Your task to perform on an android device: toggle sleep mode Image 0: 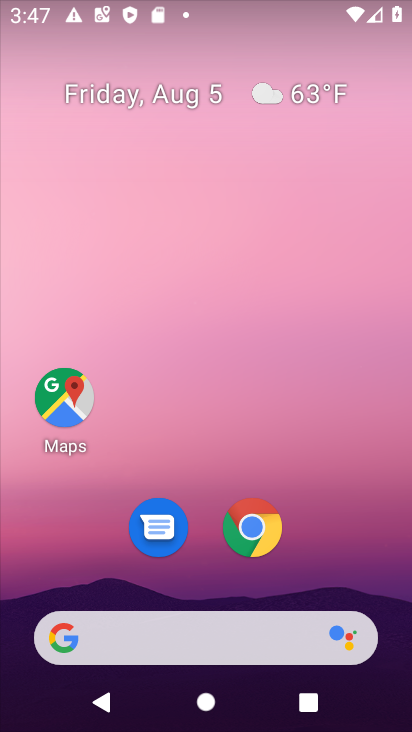
Step 0: drag from (218, 574) to (214, 81)
Your task to perform on an android device: toggle sleep mode Image 1: 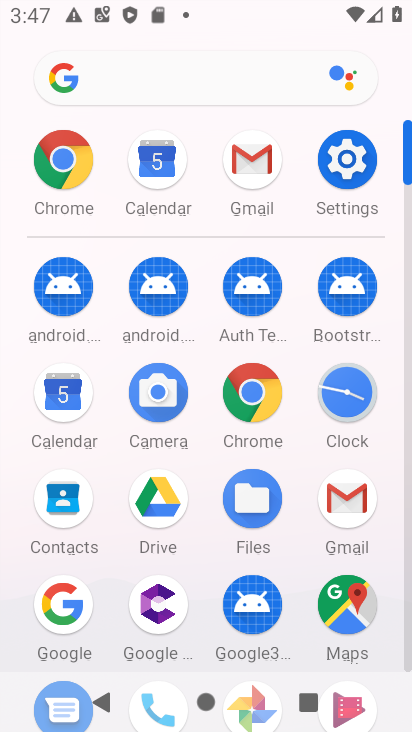
Step 1: click (348, 165)
Your task to perform on an android device: toggle sleep mode Image 2: 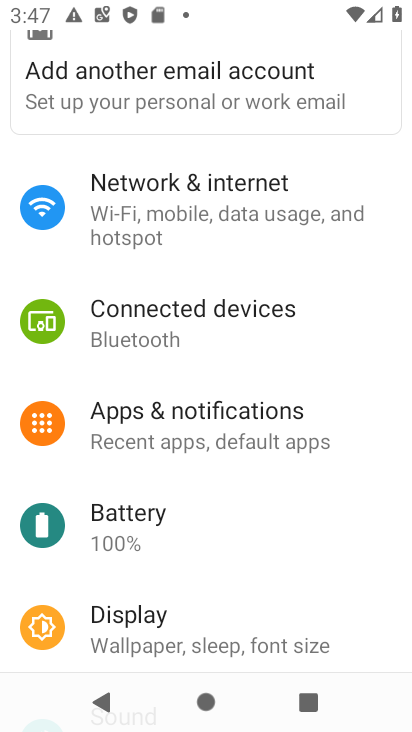
Step 2: drag from (254, 627) to (255, 381)
Your task to perform on an android device: toggle sleep mode Image 3: 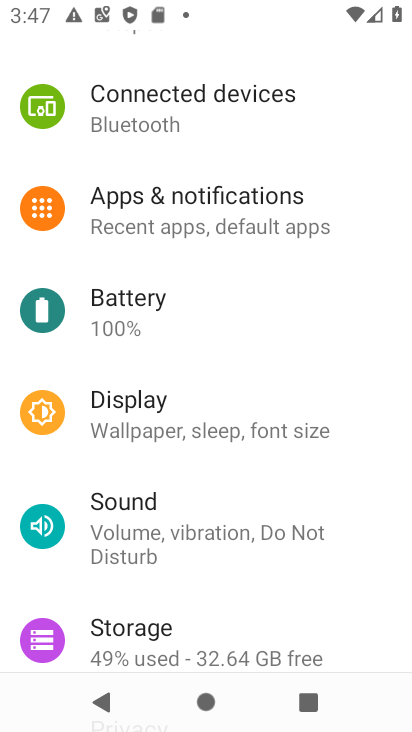
Step 3: click (187, 431)
Your task to perform on an android device: toggle sleep mode Image 4: 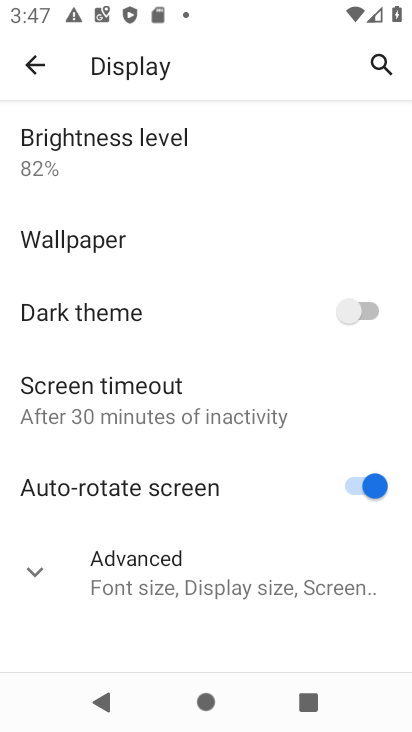
Step 4: task complete